Your task to perform on an android device: Go to Google maps Image 0: 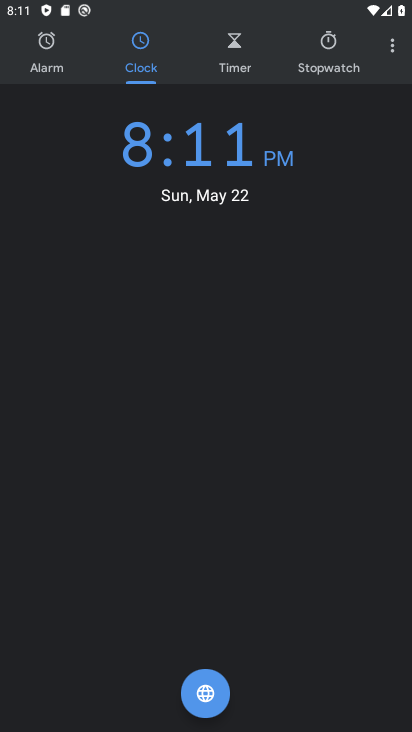
Step 0: press home button
Your task to perform on an android device: Go to Google maps Image 1: 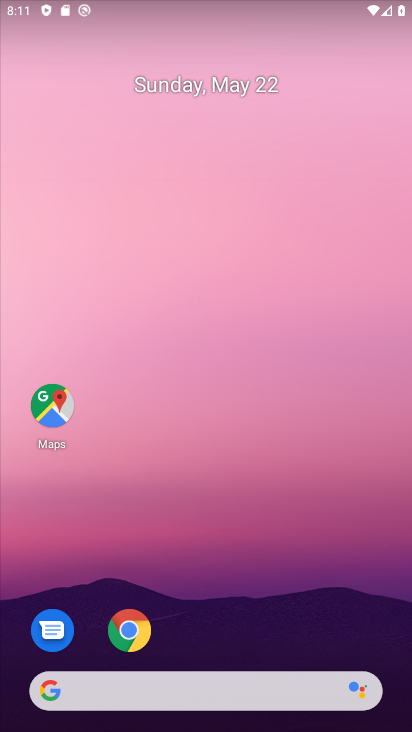
Step 1: click (42, 397)
Your task to perform on an android device: Go to Google maps Image 2: 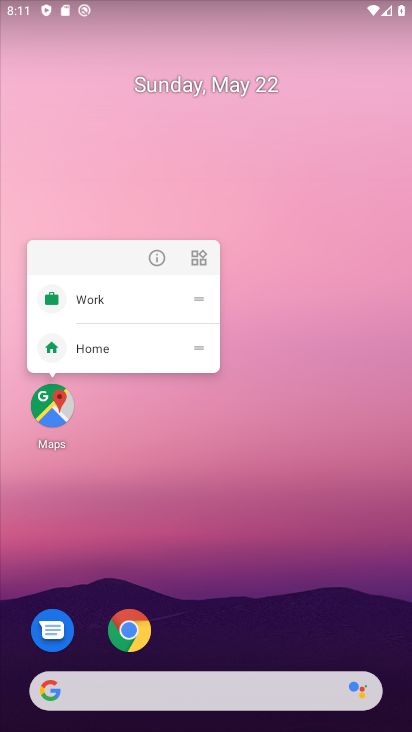
Step 2: click (58, 413)
Your task to perform on an android device: Go to Google maps Image 3: 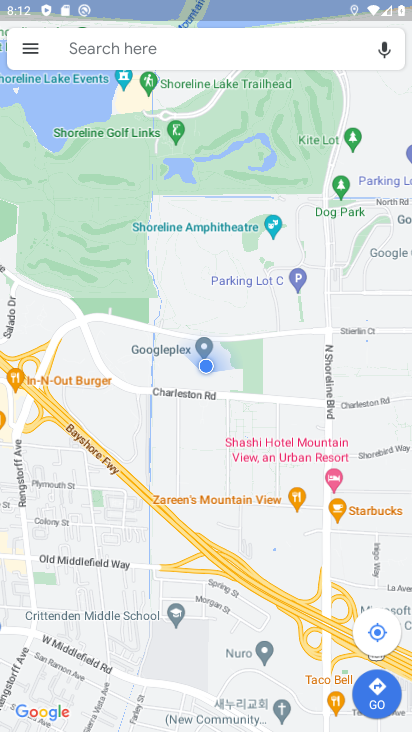
Step 3: task complete